Your task to perform on an android device: Open maps Image 0: 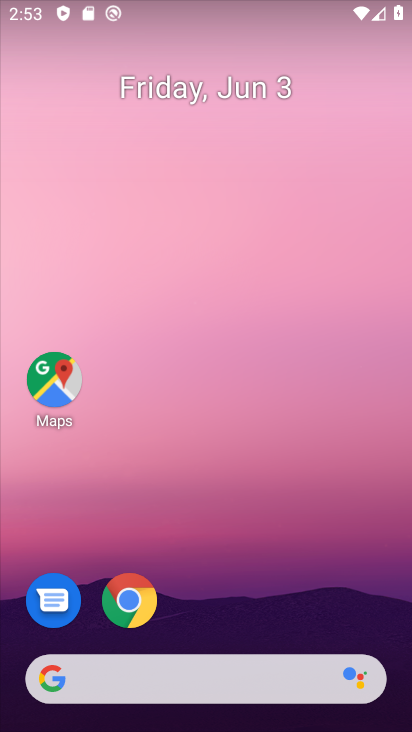
Step 0: click (60, 378)
Your task to perform on an android device: Open maps Image 1: 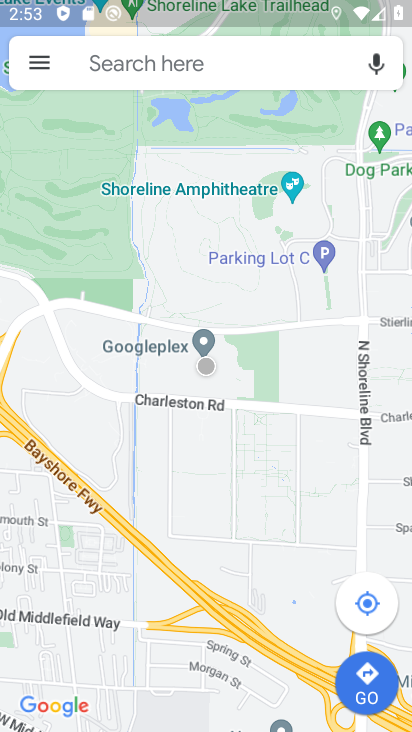
Step 1: task complete